Your task to perform on an android device: turn on data saver in the chrome app Image 0: 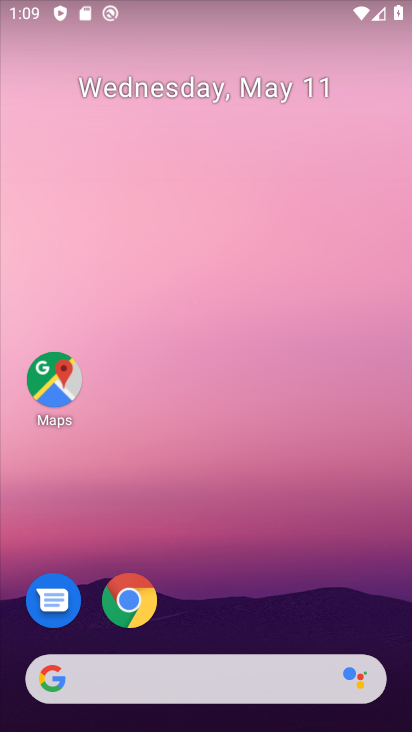
Step 0: drag from (190, 618) to (187, 324)
Your task to perform on an android device: turn on data saver in the chrome app Image 1: 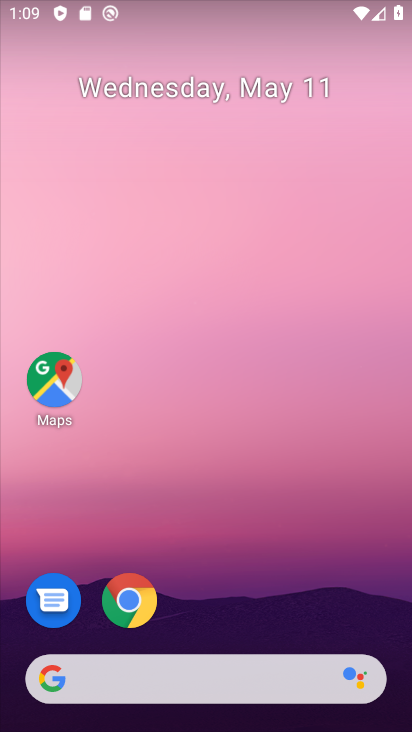
Step 1: drag from (271, 611) to (277, 121)
Your task to perform on an android device: turn on data saver in the chrome app Image 2: 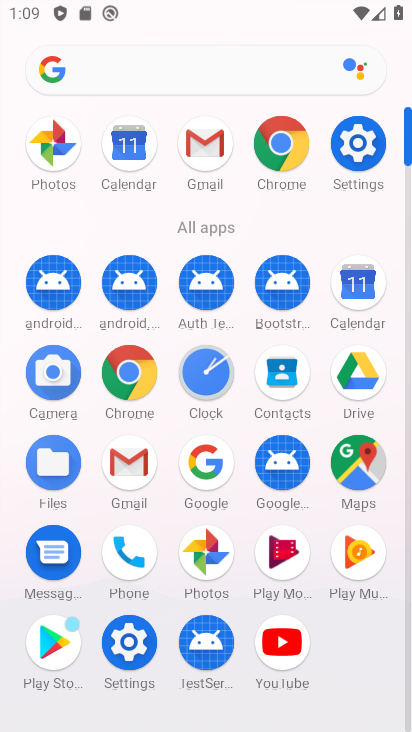
Step 2: click (262, 143)
Your task to perform on an android device: turn on data saver in the chrome app Image 3: 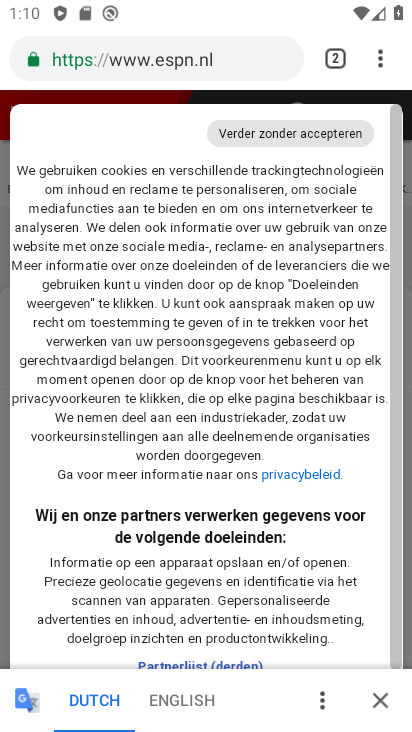
Step 3: click (365, 53)
Your task to perform on an android device: turn on data saver in the chrome app Image 4: 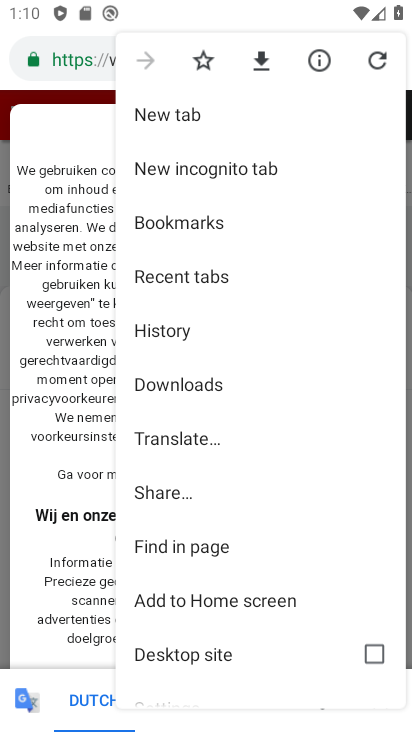
Step 4: drag from (223, 568) to (266, 321)
Your task to perform on an android device: turn on data saver in the chrome app Image 5: 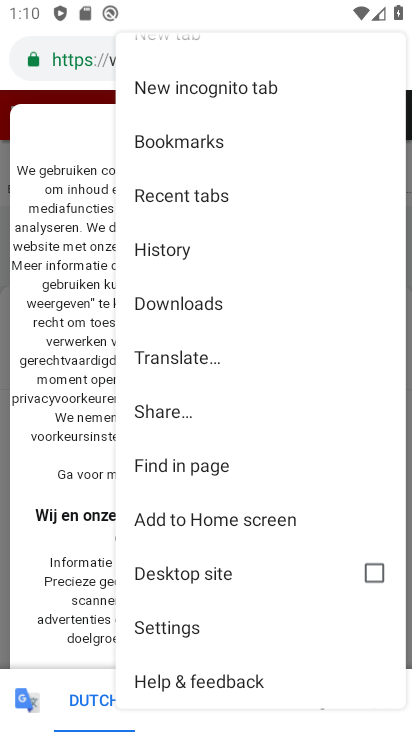
Step 5: click (193, 631)
Your task to perform on an android device: turn on data saver in the chrome app Image 6: 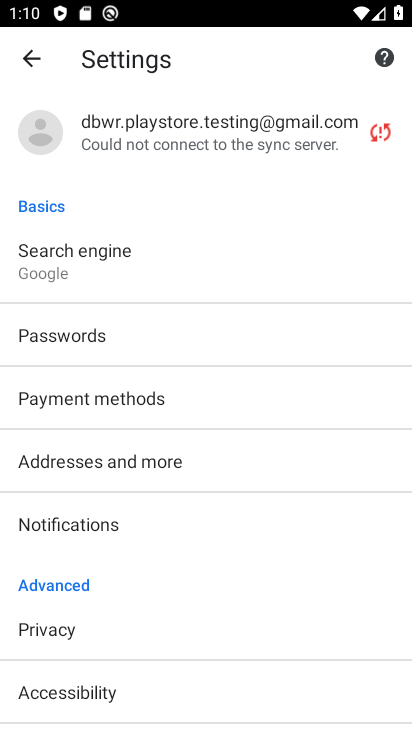
Step 6: drag from (125, 658) to (172, 363)
Your task to perform on an android device: turn on data saver in the chrome app Image 7: 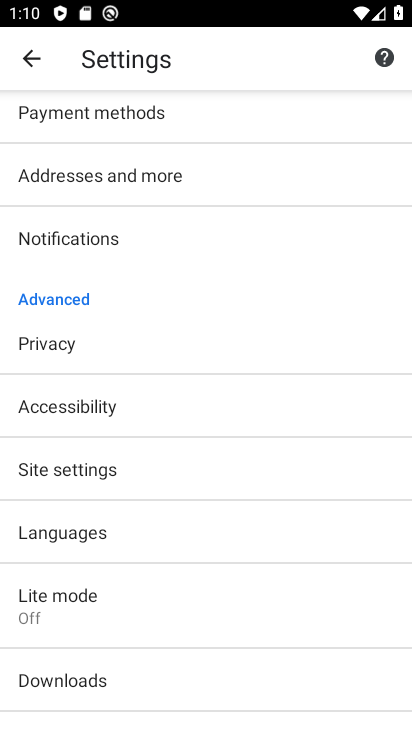
Step 7: click (93, 617)
Your task to perform on an android device: turn on data saver in the chrome app Image 8: 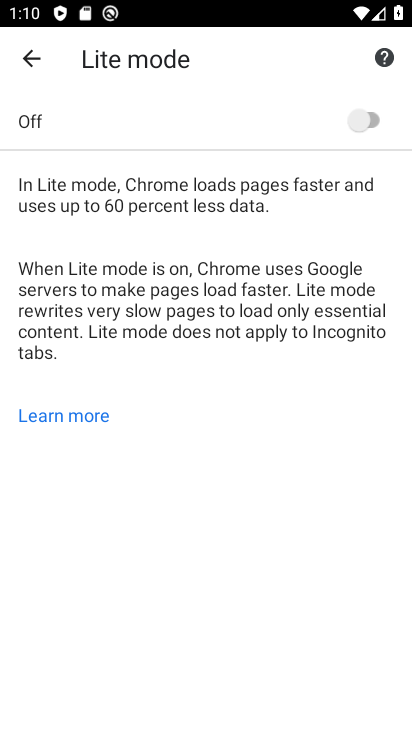
Step 8: click (358, 127)
Your task to perform on an android device: turn on data saver in the chrome app Image 9: 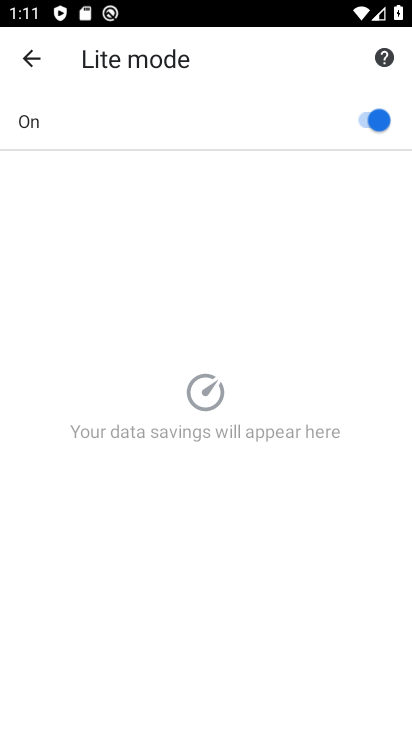
Step 9: task complete